Your task to perform on an android device: change the clock display to digital Image 0: 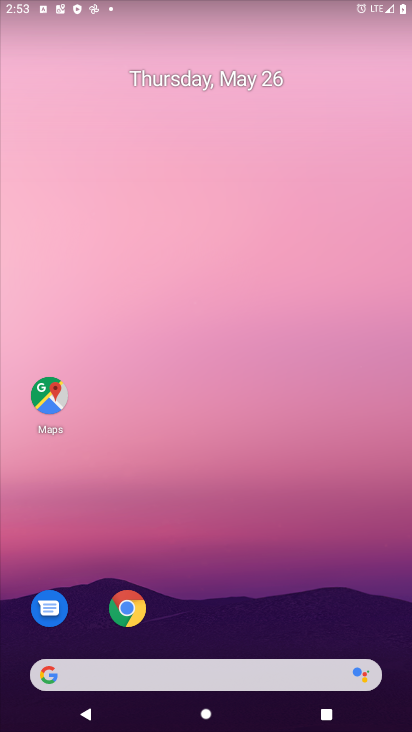
Step 0: drag from (384, 620) to (337, 124)
Your task to perform on an android device: change the clock display to digital Image 1: 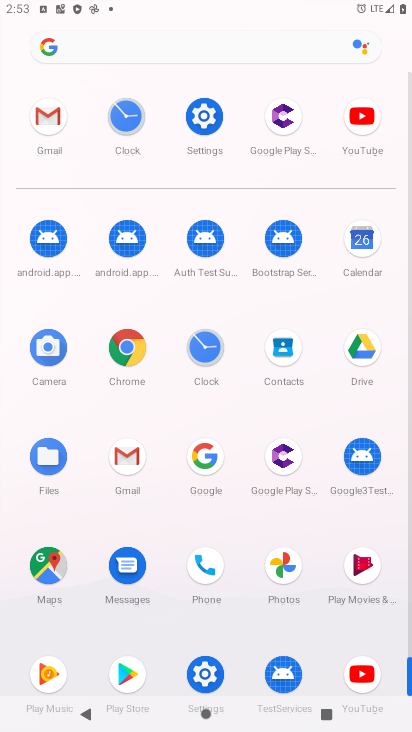
Step 1: click (204, 349)
Your task to perform on an android device: change the clock display to digital Image 2: 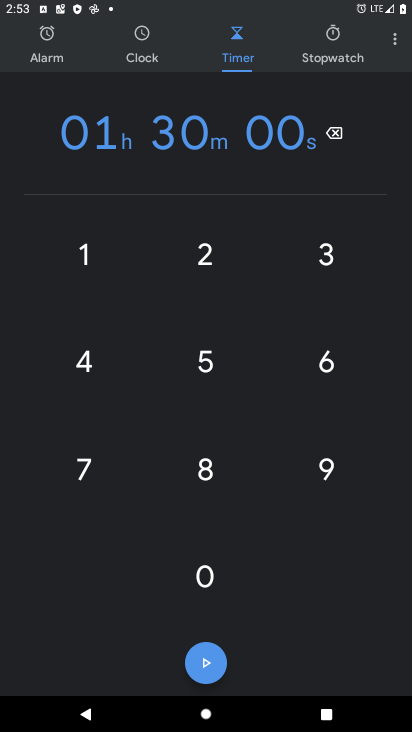
Step 2: click (397, 40)
Your task to perform on an android device: change the clock display to digital Image 3: 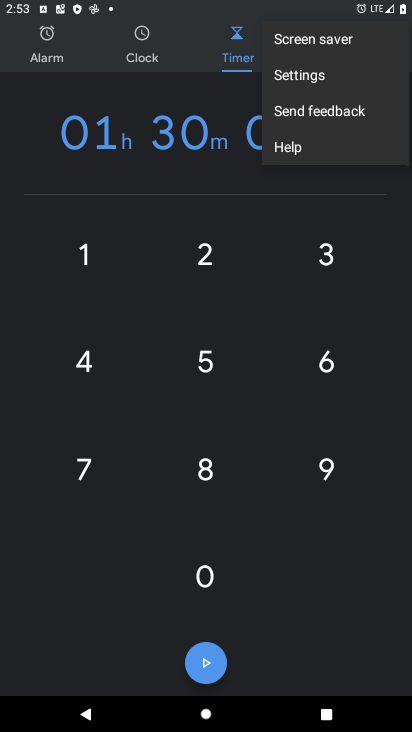
Step 3: click (288, 79)
Your task to perform on an android device: change the clock display to digital Image 4: 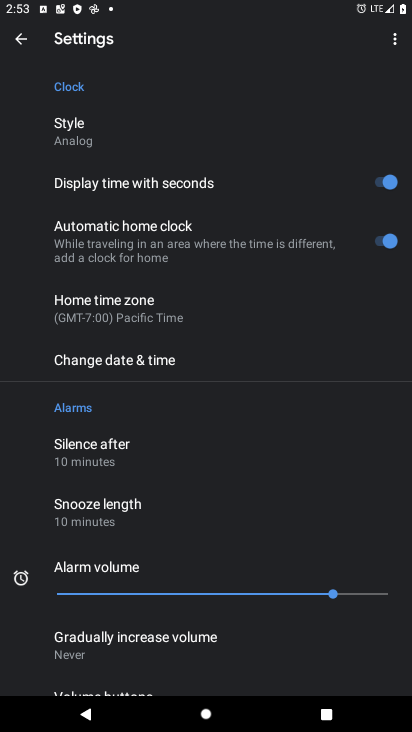
Step 4: click (63, 130)
Your task to perform on an android device: change the clock display to digital Image 5: 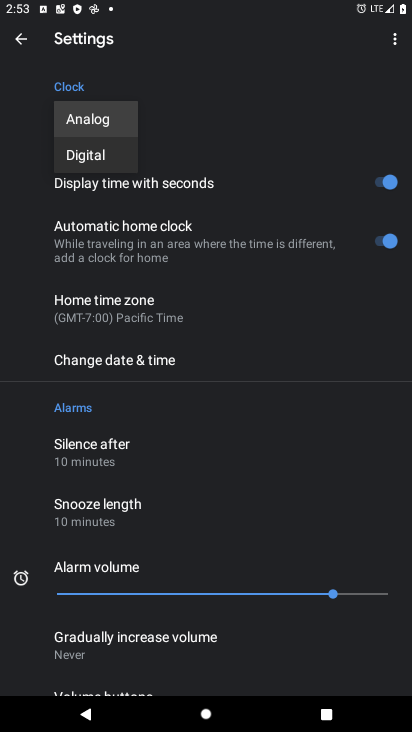
Step 5: click (97, 166)
Your task to perform on an android device: change the clock display to digital Image 6: 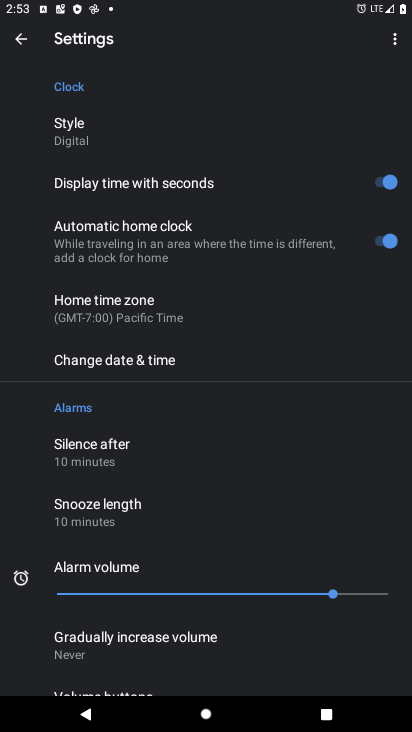
Step 6: task complete